Your task to perform on an android device: Check the news Image 0: 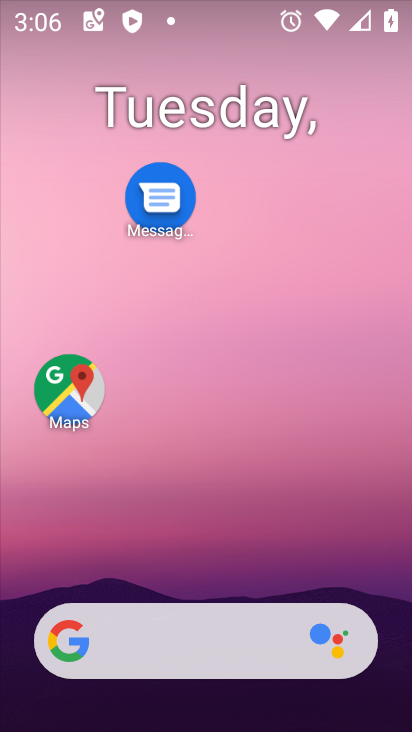
Step 0: drag from (194, 556) to (233, 281)
Your task to perform on an android device: Check the news Image 1: 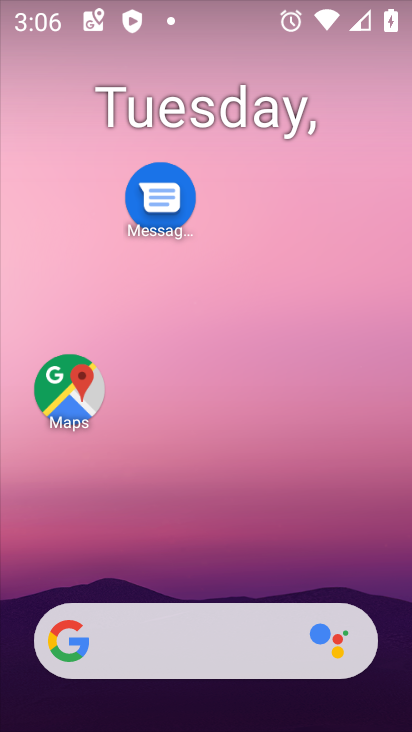
Step 1: drag from (205, 574) to (224, 221)
Your task to perform on an android device: Check the news Image 2: 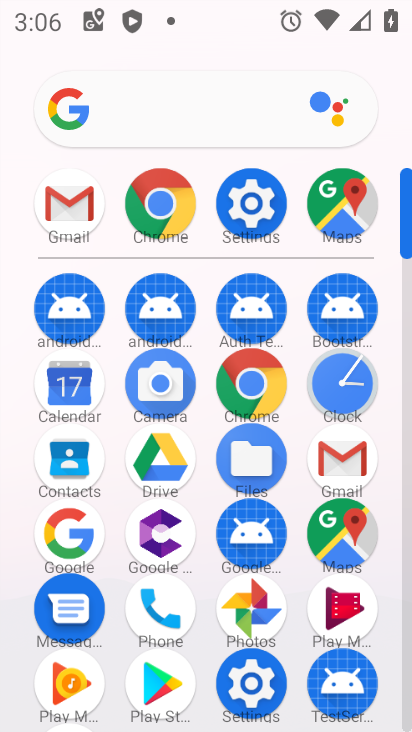
Step 2: click (81, 537)
Your task to perform on an android device: Check the news Image 3: 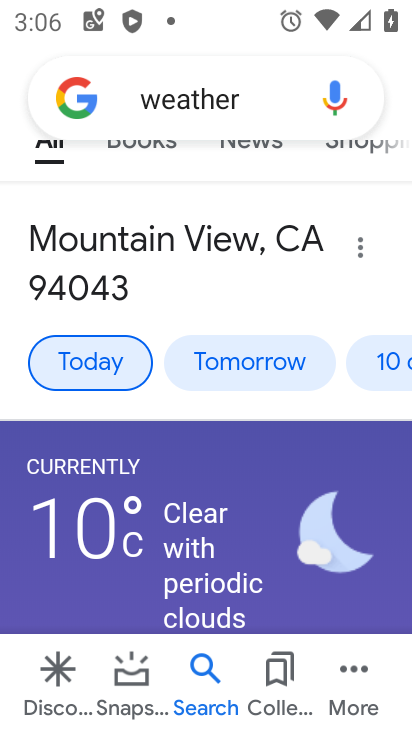
Step 3: click (280, 94)
Your task to perform on an android device: Check the news Image 4: 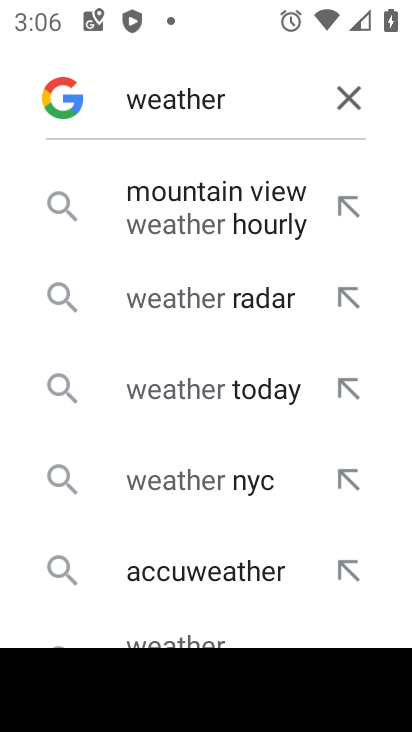
Step 4: click (344, 93)
Your task to perform on an android device: Check the news Image 5: 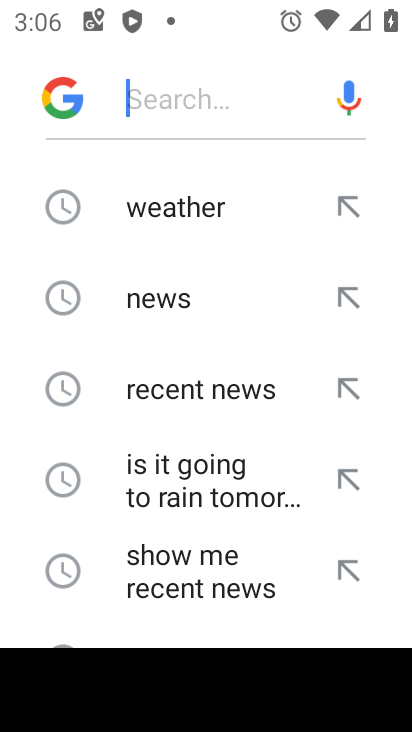
Step 5: click (150, 303)
Your task to perform on an android device: Check the news Image 6: 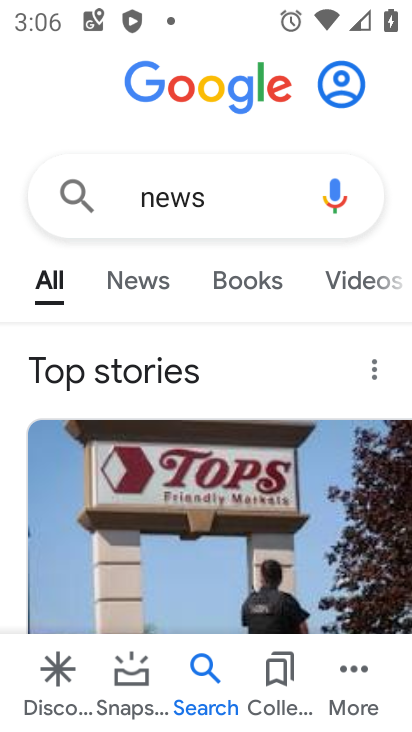
Step 6: click (165, 282)
Your task to perform on an android device: Check the news Image 7: 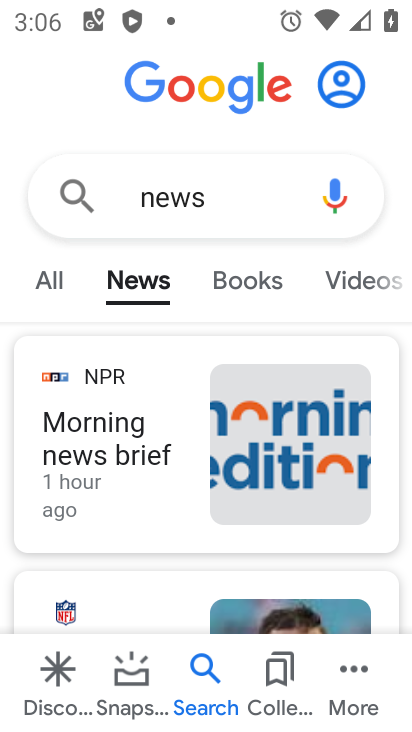
Step 7: task complete